Your task to perform on an android device: snooze an email in the gmail app Image 0: 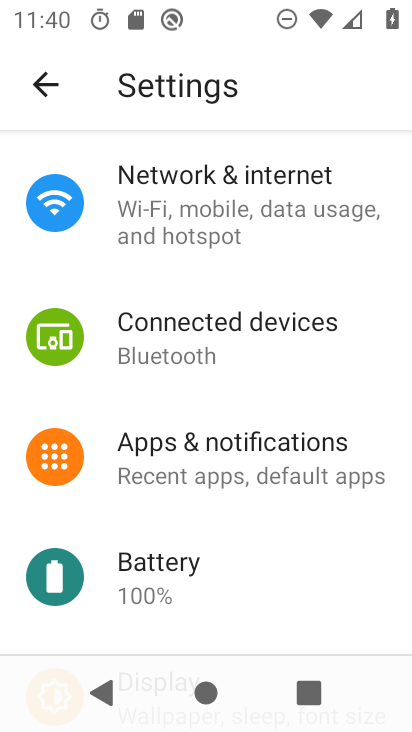
Step 0: press home button
Your task to perform on an android device: snooze an email in the gmail app Image 1: 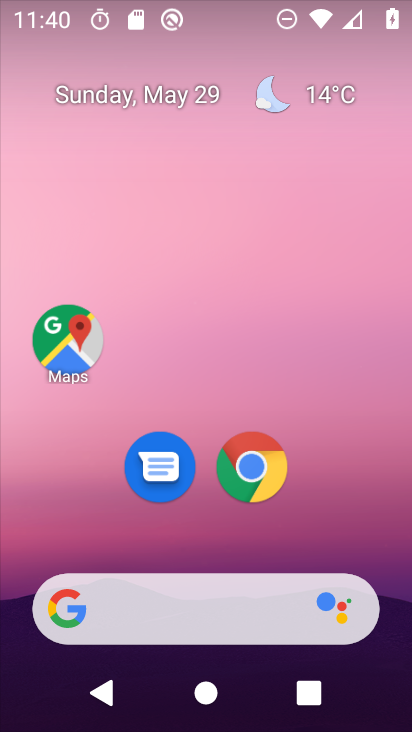
Step 1: drag from (177, 525) to (184, 152)
Your task to perform on an android device: snooze an email in the gmail app Image 2: 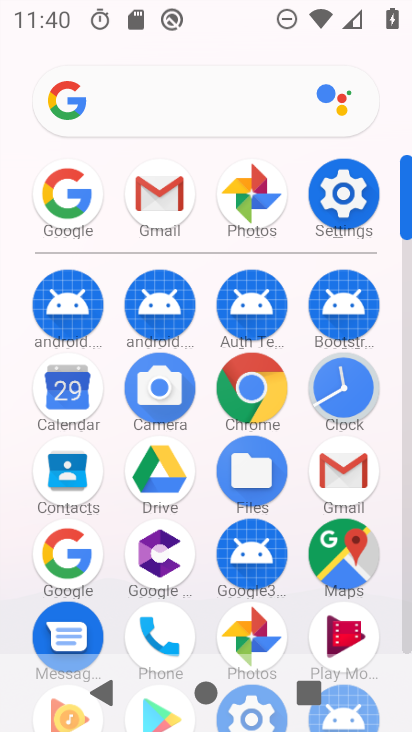
Step 2: click (140, 202)
Your task to perform on an android device: snooze an email in the gmail app Image 3: 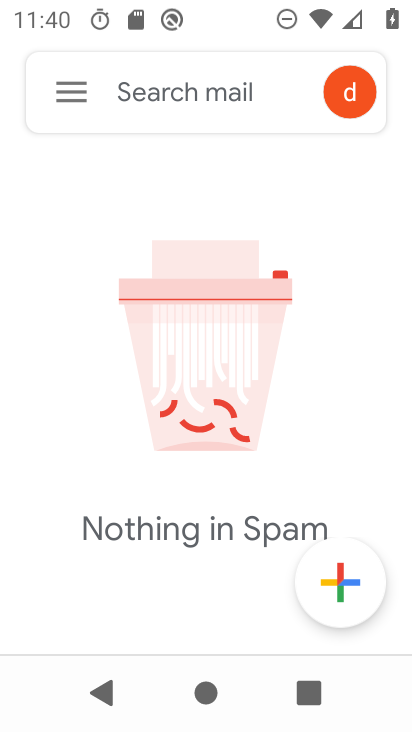
Step 3: click (67, 103)
Your task to perform on an android device: snooze an email in the gmail app Image 4: 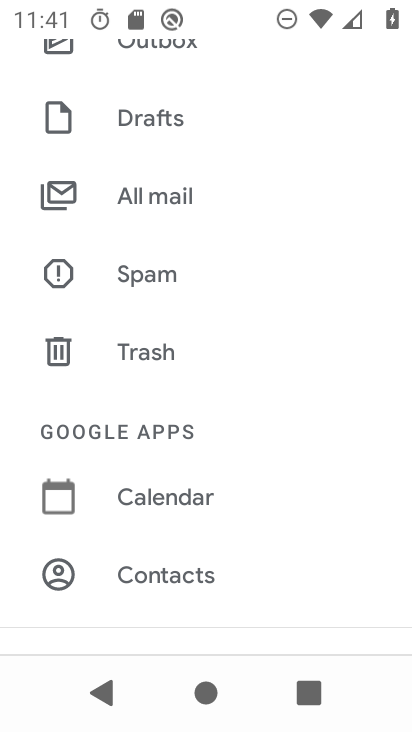
Step 4: drag from (156, 209) to (201, 522)
Your task to perform on an android device: snooze an email in the gmail app Image 5: 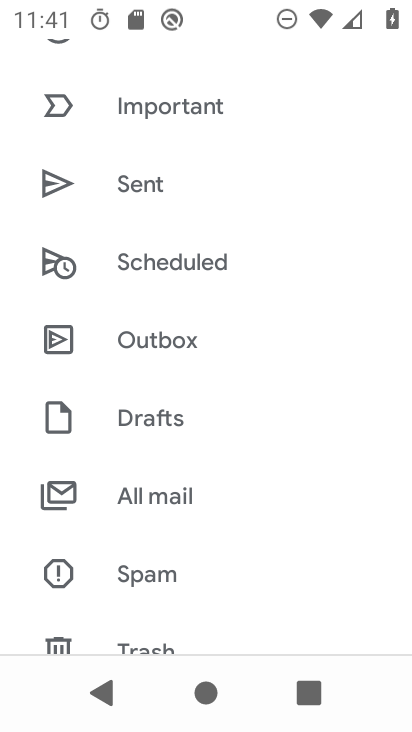
Step 5: click (173, 483)
Your task to perform on an android device: snooze an email in the gmail app Image 6: 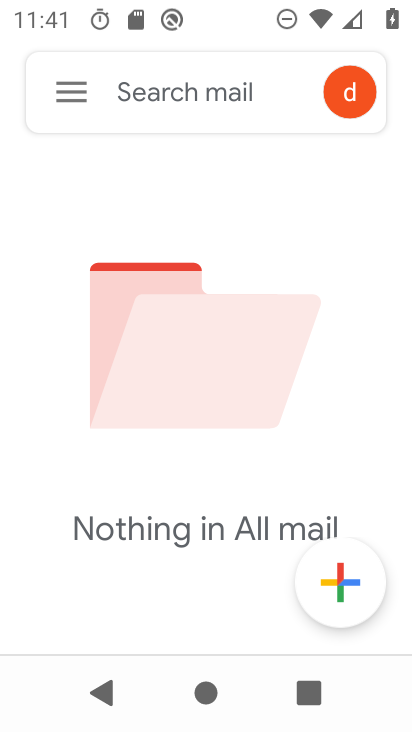
Step 6: task complete